Your task to perform on an android device: change the clock display to show seconds Image 0: 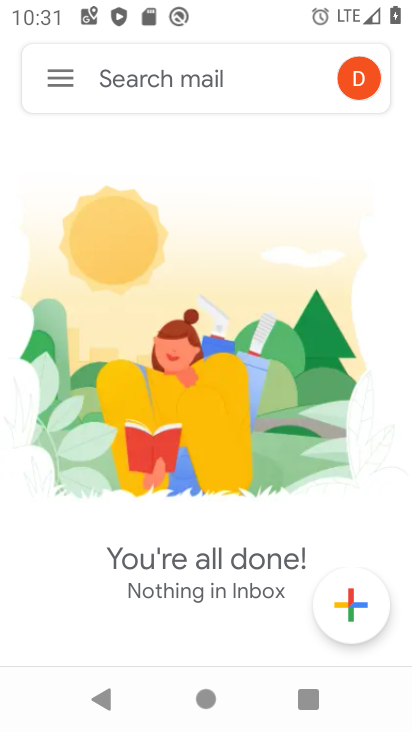
Step 0: press home button
Your task to perform on an android device: change the clock display to show seconds Image 1: 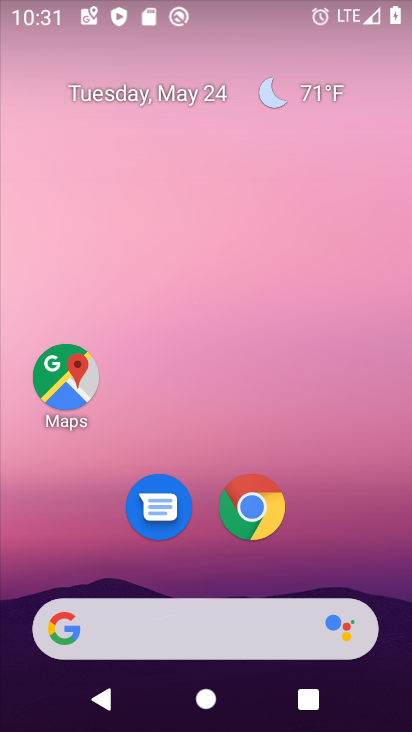
Step 1: drag from (238, 727) to (198, 139)
Your task to perform on an android device: change the clock display to show seconds Image 2: 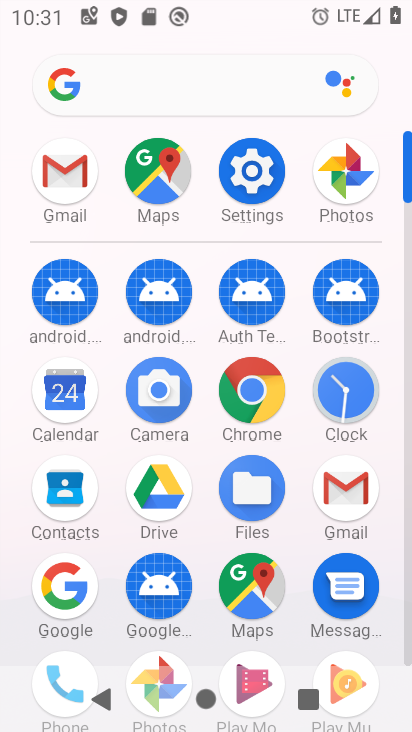
Step 2: click (341, 390)
Your task to perform on an android device: change the clock display to show seconds Image 3: 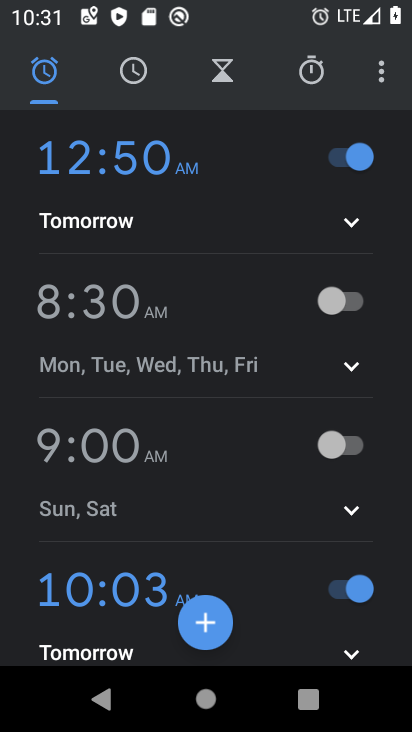
Step 3: click (381, 84)
Your task to perform on an android device: change the clock display to show seconds Image 4: 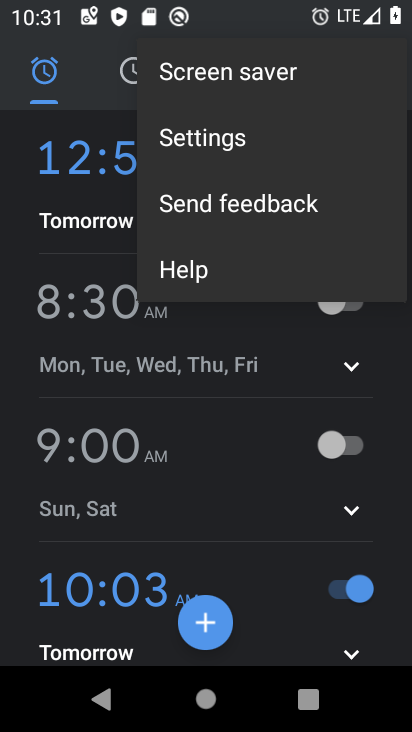
Step 4: click (219, 140)
Your task to perform on an android device: change the clock display to show seconds Image 5: 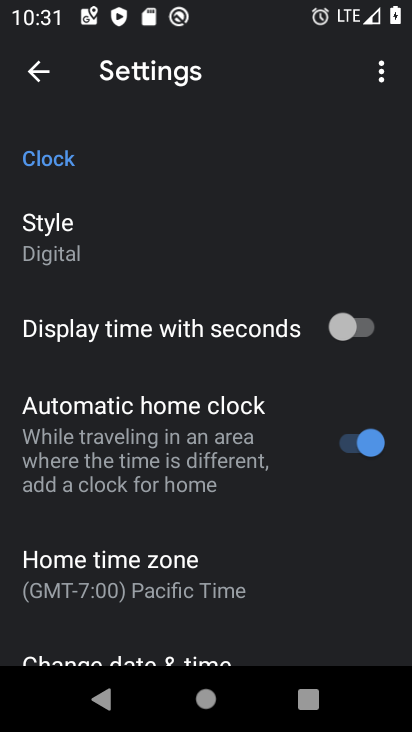
Step 5: click (362, 324)
Your task to perform on an android device: change the clock display to show seconds Image 6: 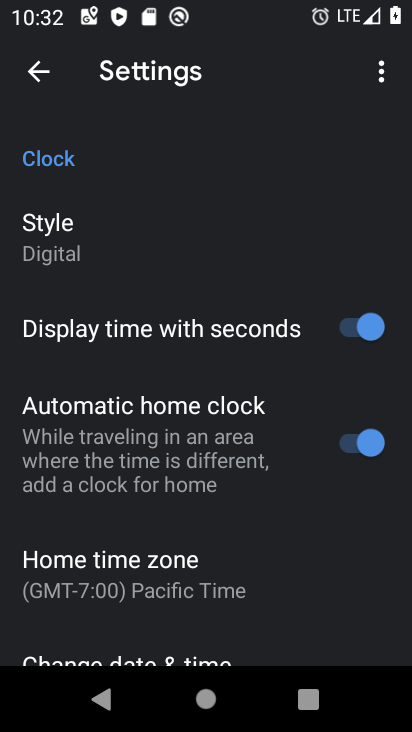
Step 6: task complete